Your task to perform on an android device: turn on translation in the chrome app Image 0: 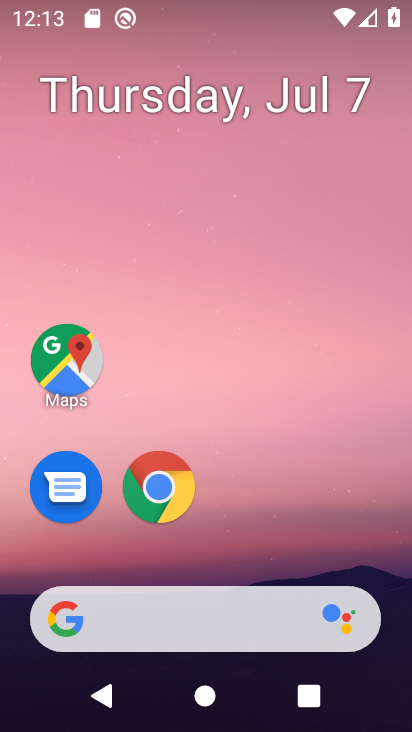
Step 0: drag from (358, 526) to (312, 146)
Your task to perform on an android device: turn on translation in the chrome app Image 1: 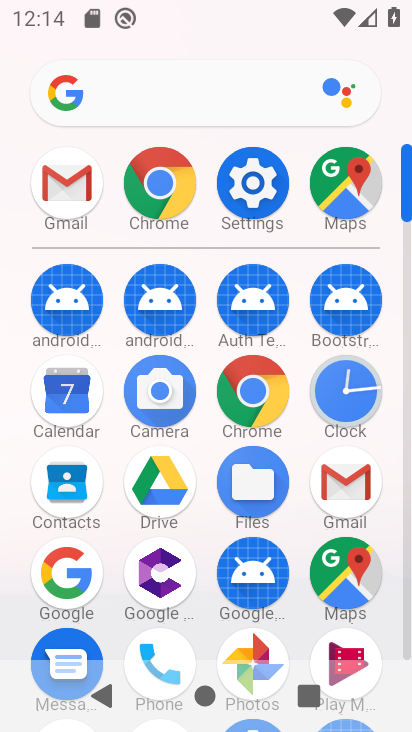
Step 1: click (278, 403)
Your task to perform on an android device: turn on translation in the chrome app Image 2: 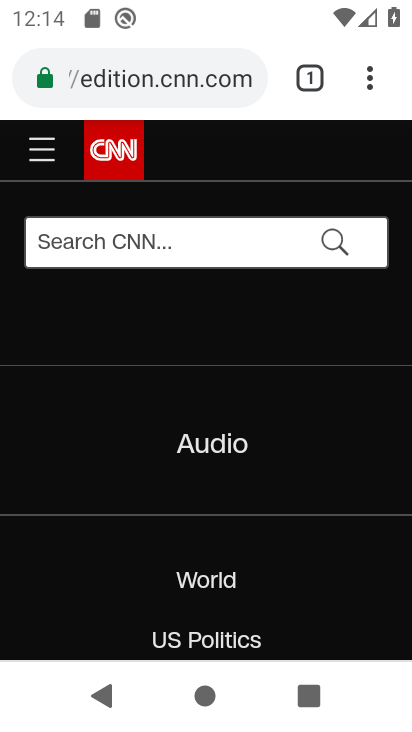
Step 2: click (369, 91)
Your task to perform on an android device: turn on translation in the chrome app Image 3: 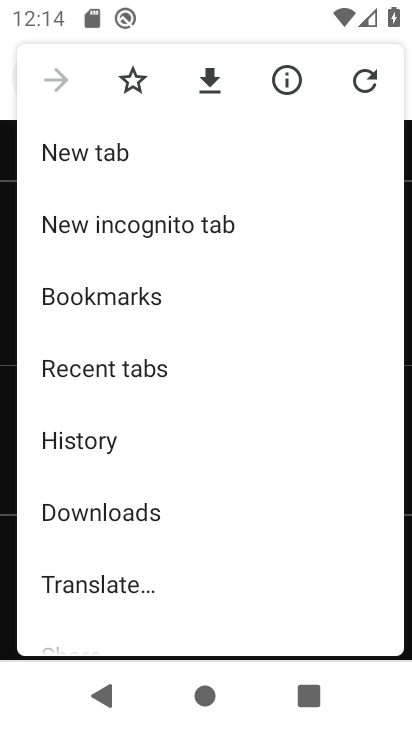
Step 3: drag from (287, 559) to (296, 411)
Your task to perform on an android device: turn on translation in the chrome app Image 4: 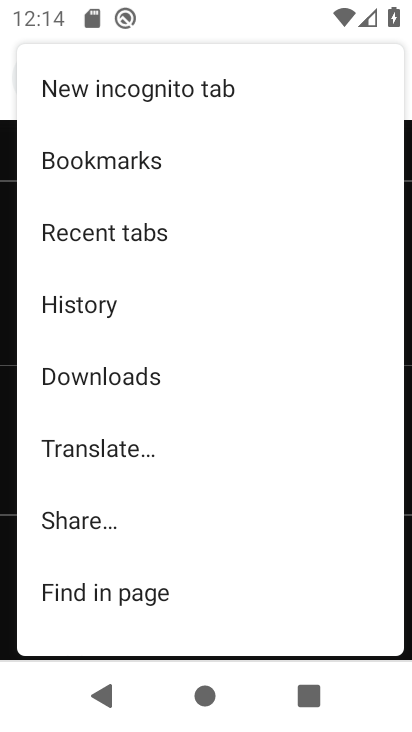
Step 4: drag from (315, 517) to (322, 442)
Your task to perform on an android device: turn on translation in the chrome app Image 5: 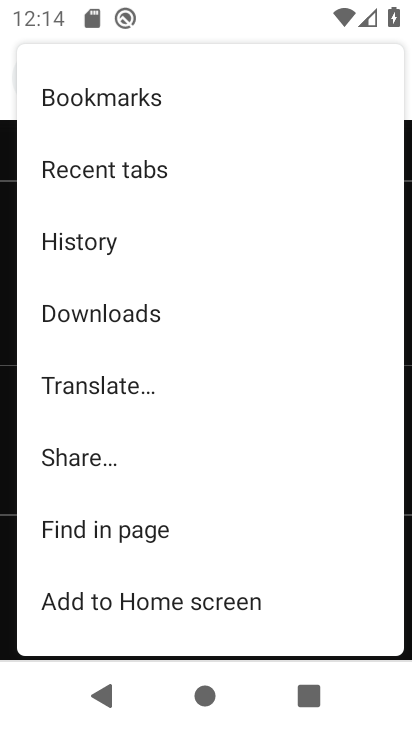
Step 5: drag from (319, 555) to (308, 417)
Your task to perform on an android device: turn on translation in the chrome app Image 6: 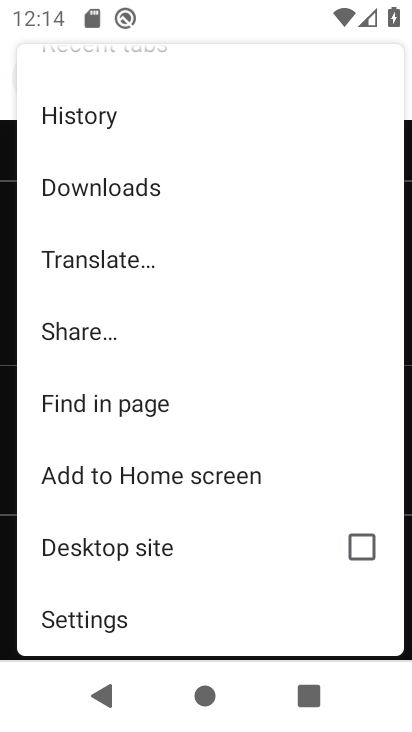
Step 6: drag from (266, 583) to (268, 423)
Your task to perform on an android device: turn on translation in the chrome app Image 7: 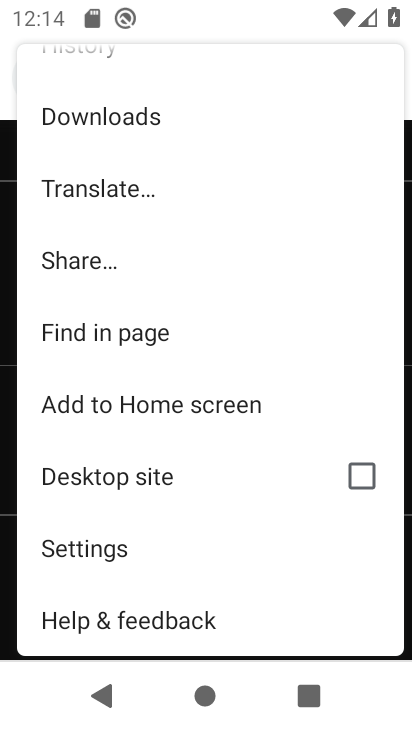
Step 7: click (176, 556)
Your task to perform on an android device: turn on translation in the chrome app Image 8: 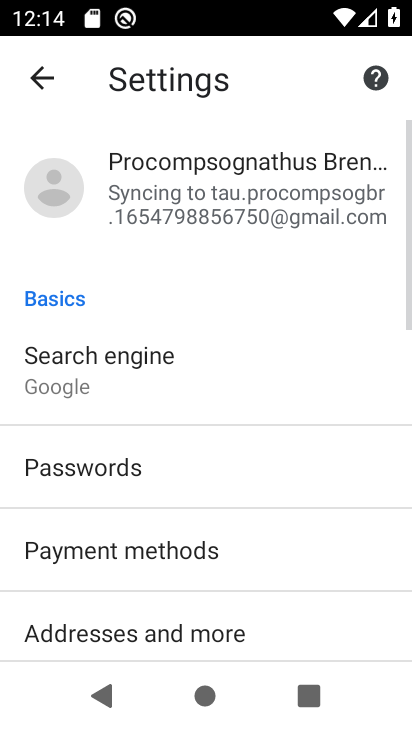
Step 8: drag from (275, 538) to (304, 366)
Your task to perform on an android device: turn on translation in the chrome app Image 9: 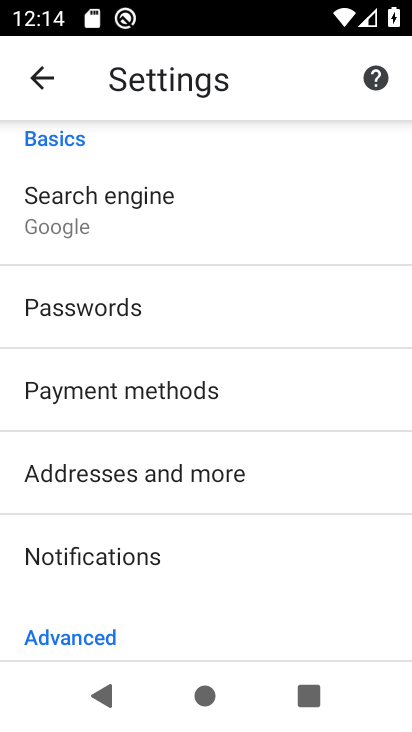
Step 9: drag from (312, 539) to (306, 372)
Your task to perform on an android device: turn on translation in the chrome app Image 10: 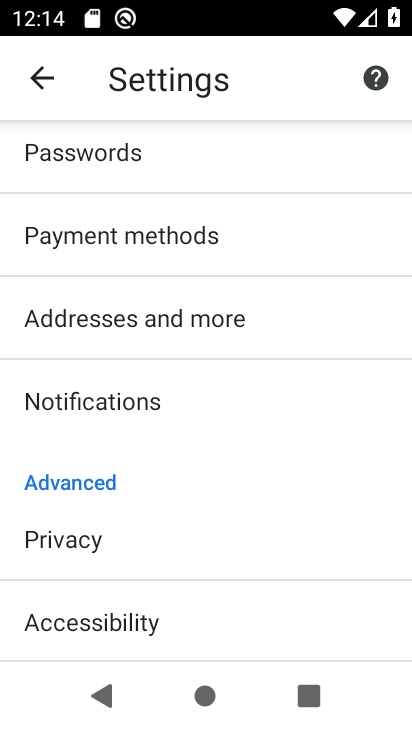
Step 10: drag from (306, 576) to (312, 443)
Your task to perform on an android device: turn on translation in the chrome app Image 11: 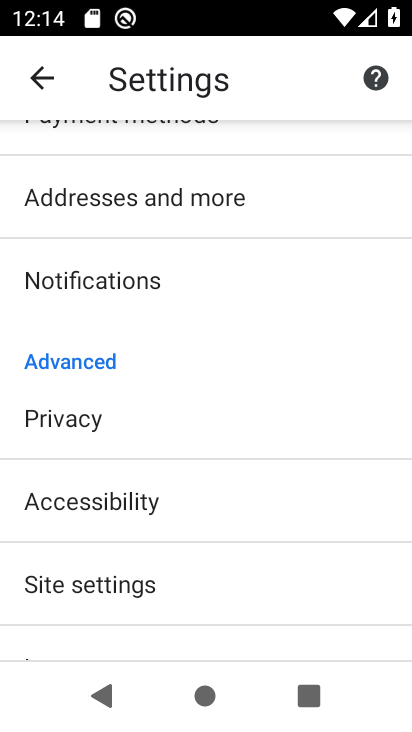
Step 11: drag from (321, 596) to (305, 439)
Your task to perform on an android device: turn on translation in the chrome app Image 12: 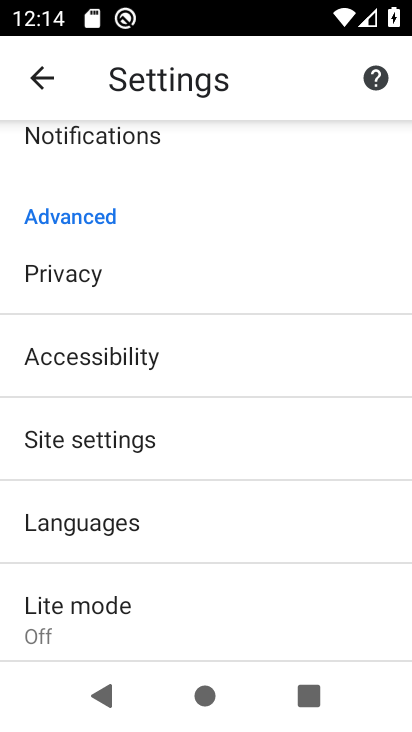
Step 12: click (301, 516)
Your task to perform on an android device: turn on translation in the chrome app Image 13: 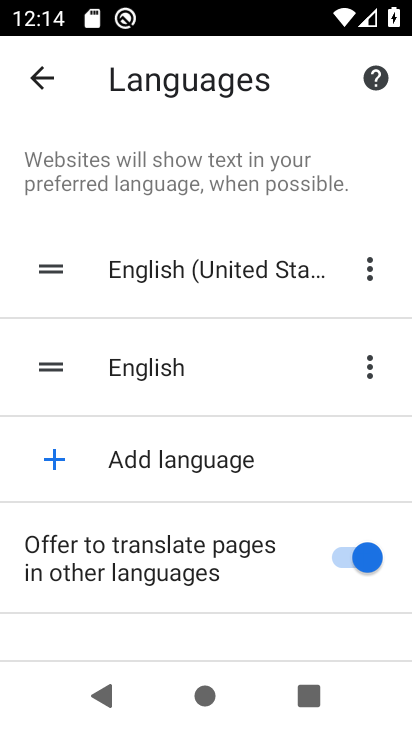
Step 13: task complete